Your task to perform on an android device: clear all cookies in the chrome app Image 0: 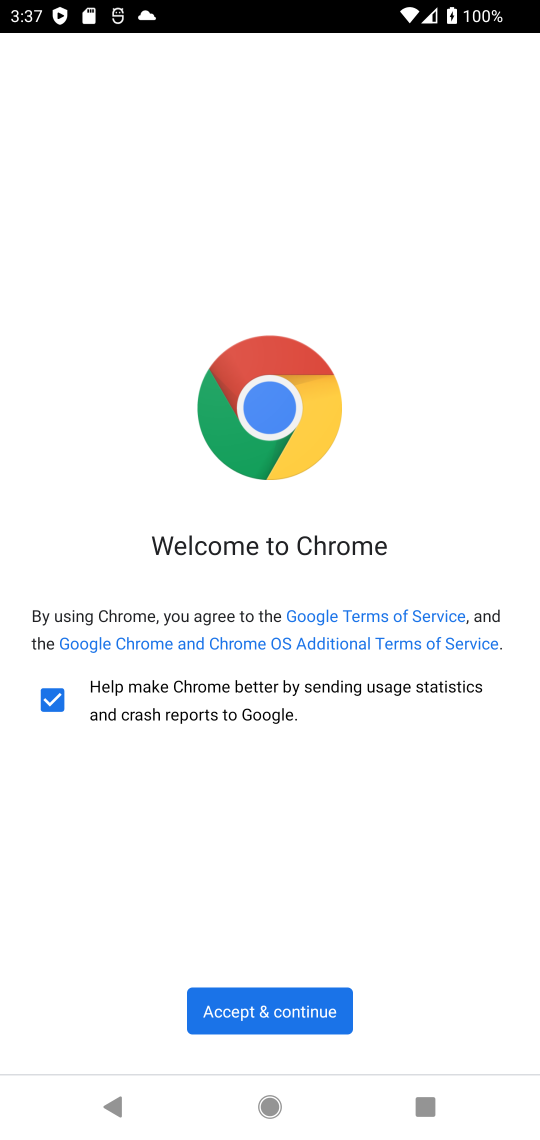
Step 0: click (246, 1005)
Your task to perform on an android device: clear all cookies in the chrome app Image 1: 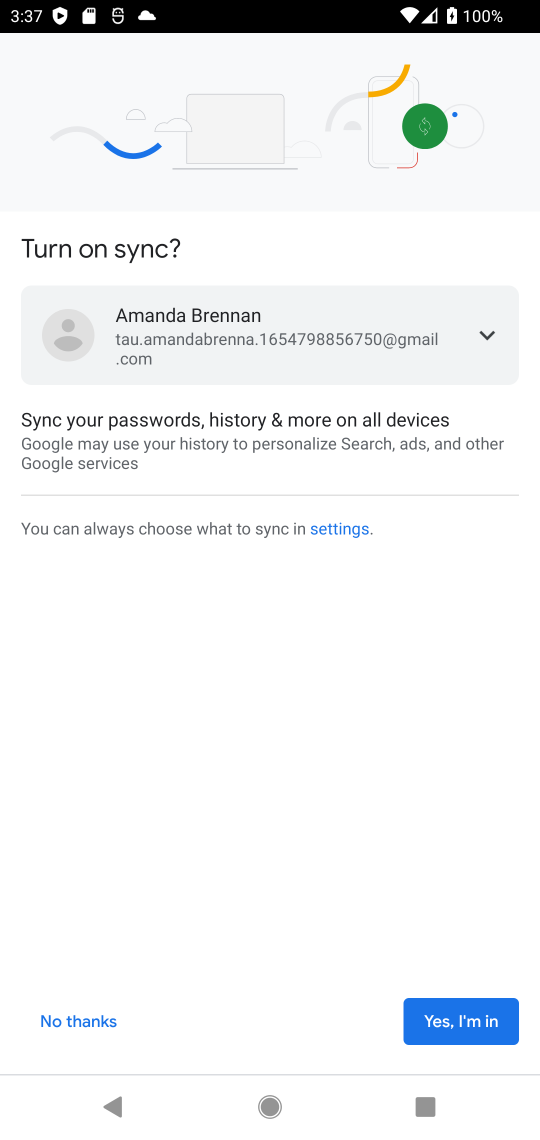
Step 1: click (60, 1019)
Your task to perform on an android device: clear all cookies in the chrome app Image 2: 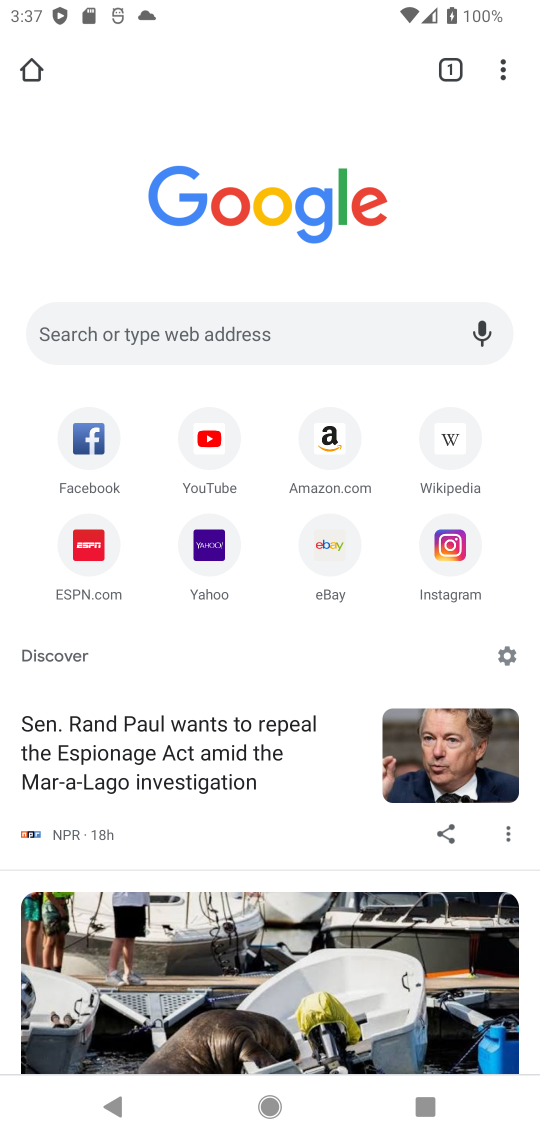
Step 2: click (506, 73)
Your task to perform on an android device: clear all cookies in the chrome app Image 3: 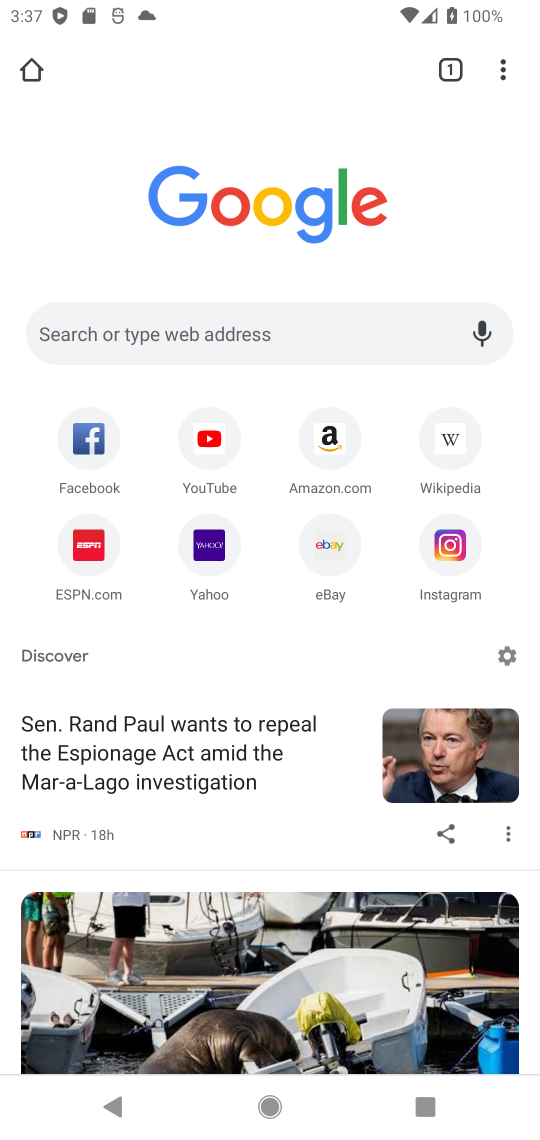
Step 3: click (511, 74)
Your task to perform on an android device: clear all cookies in the chrome app Image 4: 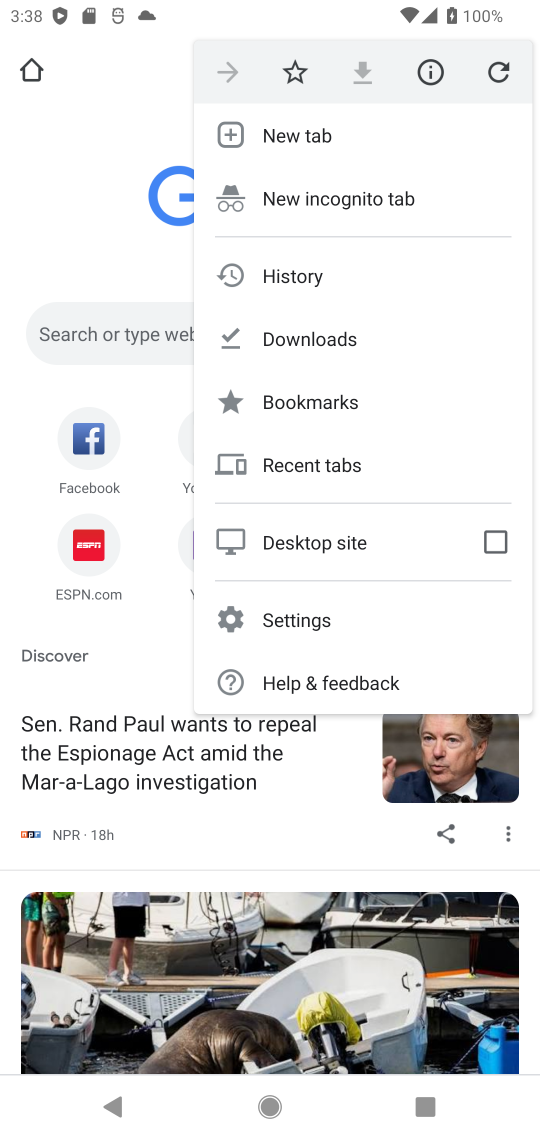
Step 4: click (301, 274)
Your task to perform on an android device: clear all cookies in the chrome app Image 5: 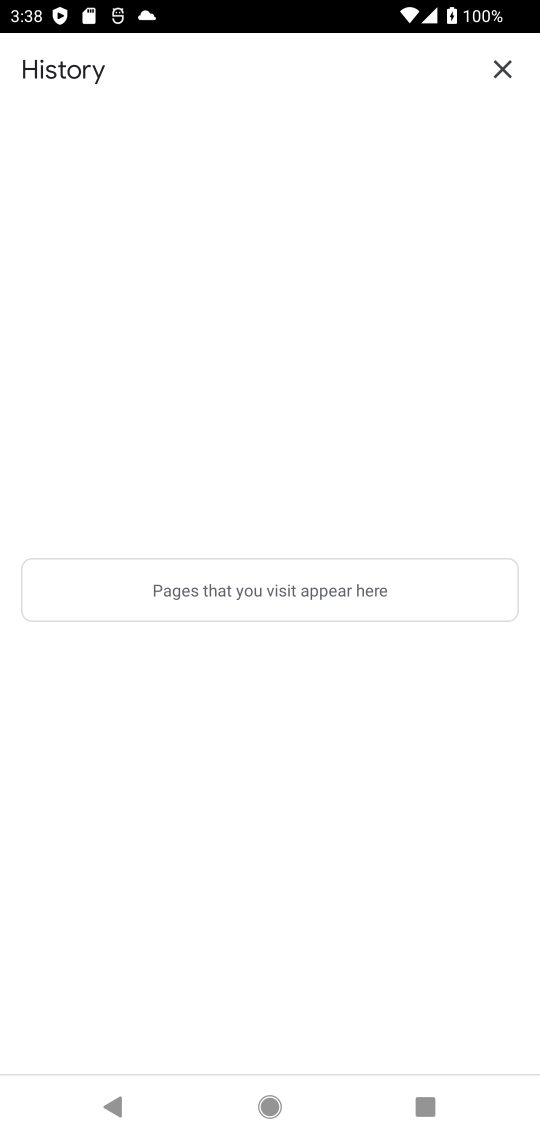
Step 5: task complete